Your task to perform on an android device: Open calendar and show me the first week of next month Image 0: 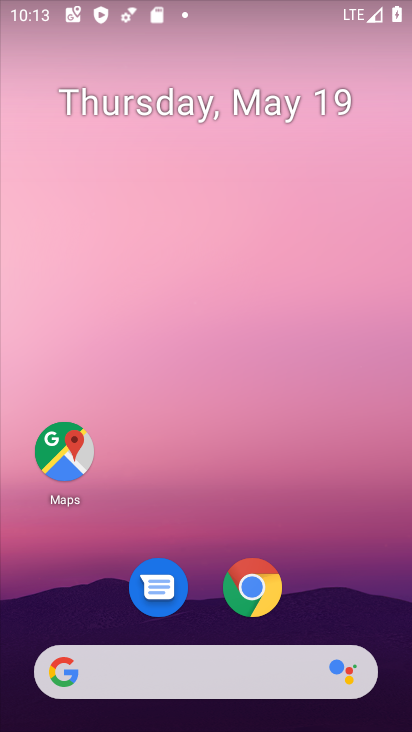
Step 0: click (166, 97)
Your task to perform on an android device: Open calendar and show me the first week of next month Image 1: 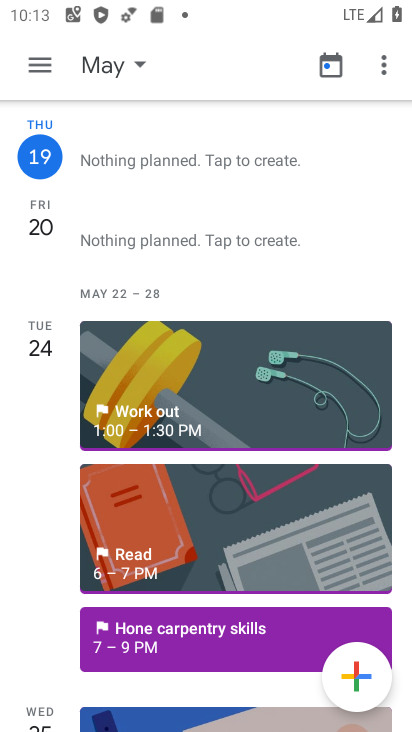
Step 1: click (142, 75)
Your task to perform on an android device: Open calendar and show me the first week of next month Image 2: 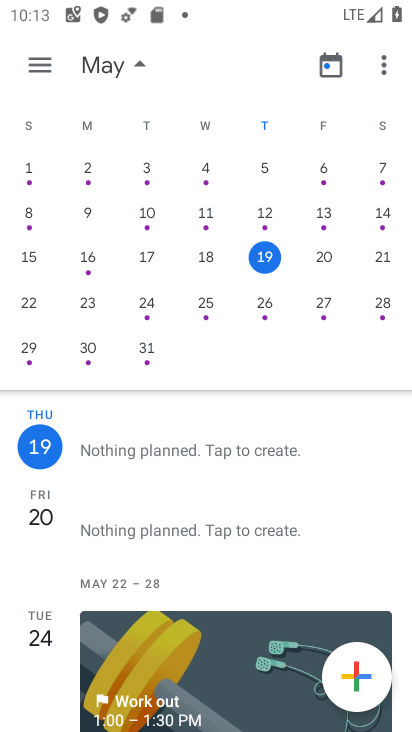
Step 2: drag from (362, 337) to (33, 326)
Your task to perform on an android device: Open calendar and show me the first week of next month Image 3: 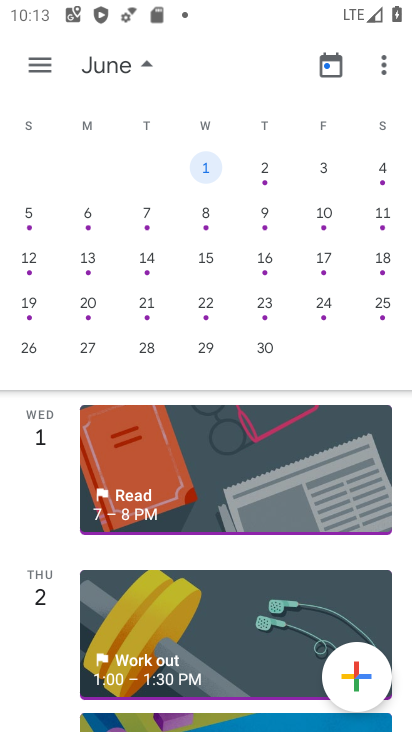
Step 3: click (264, 163)
Your task to perform on an android device: Open calendar and show me the first week of next month Image 4: 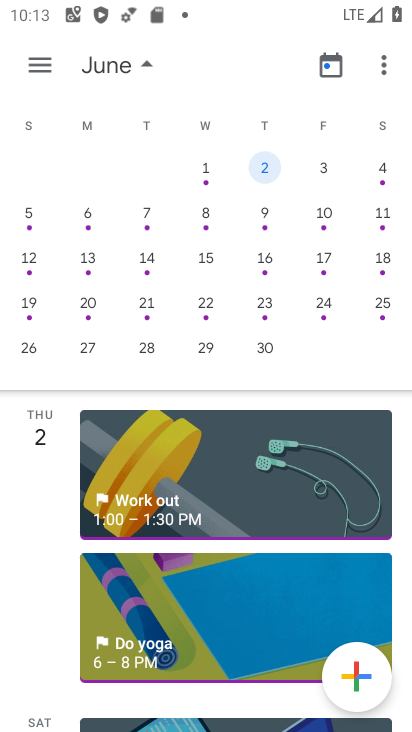
Step 4: task complete